Your task to perform on an android device: Go to network settings Image 0: 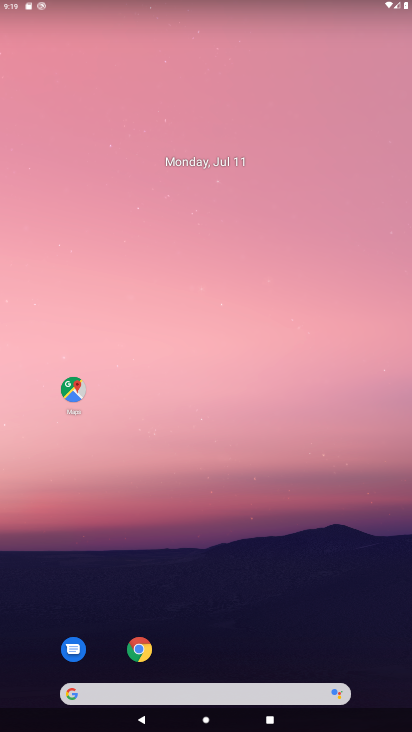
Step 0: drag from (292, 152) to (279, 50)
Your task to perform on an android device: Go to network settings Image 1: 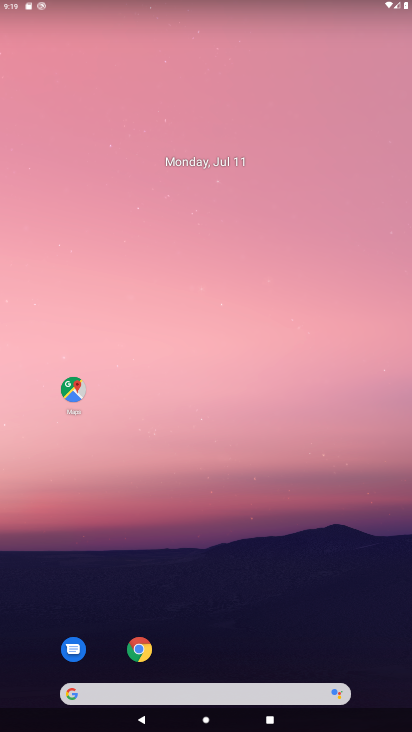
Step 1: drag from (387, 368) to (326, 205)
Your task to perform on an android device: Go to network settings Image 2: 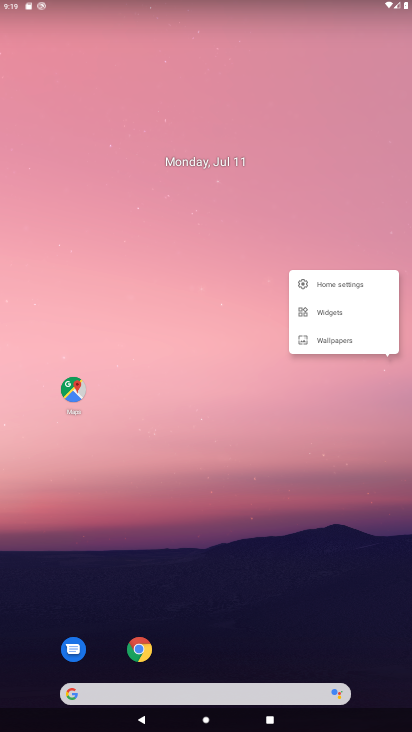
Step 2: drag from (254, 543) to (206, 174)
Your task to perform on an android device: Go to network settings Image 3: 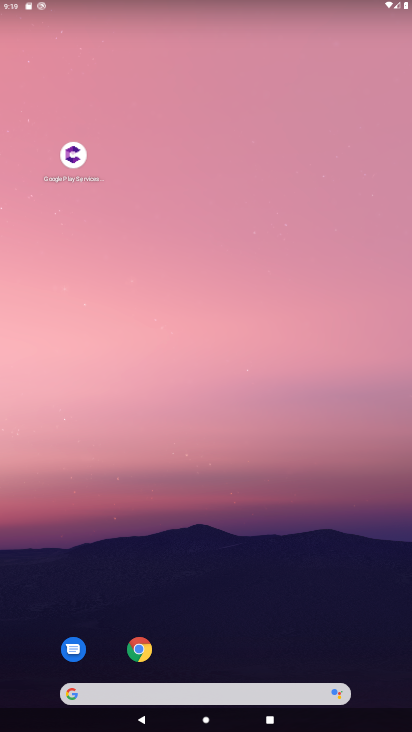
Step 3: drag from (394, 674) to (322, 75)
Your task to perform on an android device: Go to network settings Image 4: 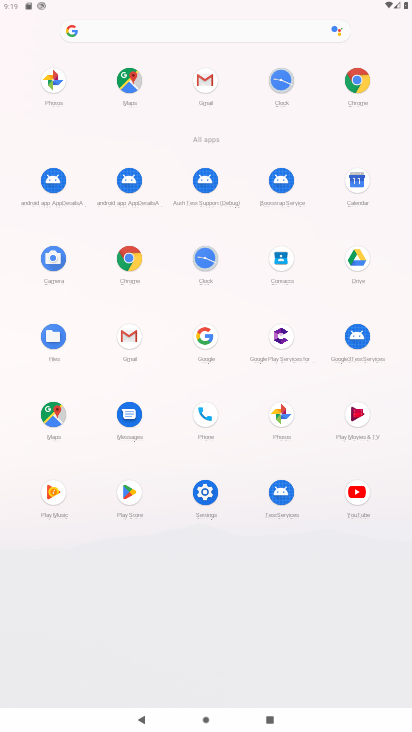
Step 4: click (207, 502)
Your task to perform on an android device: Go to network settings Image 5: 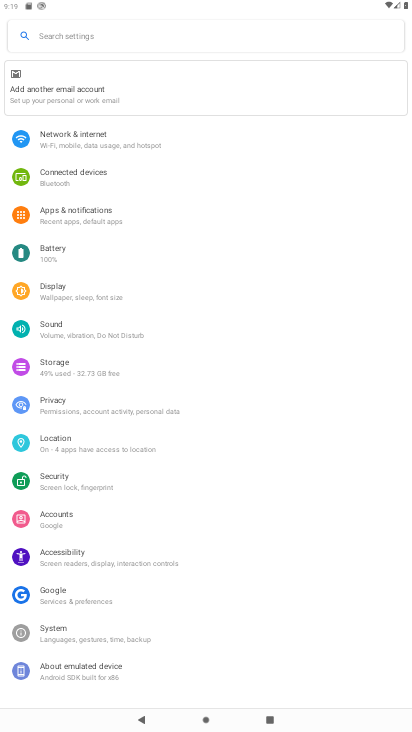
Step 5: click (213, 148)
Your task to perform on an android device: Go to network settings Image 6: 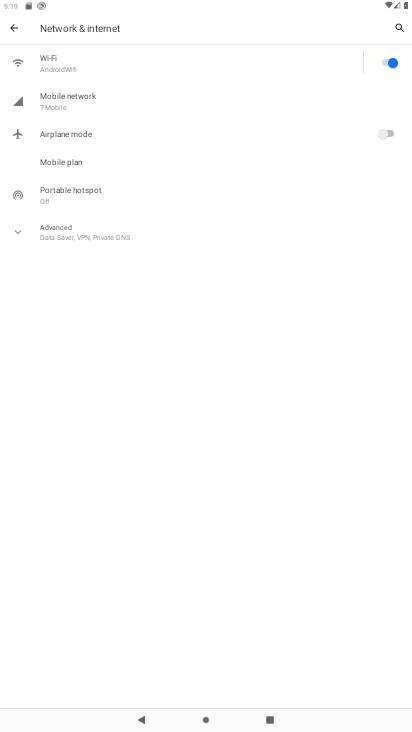
Step 6: task complete